Your task to perform on an android device: Toggle the flashlight Image 0: 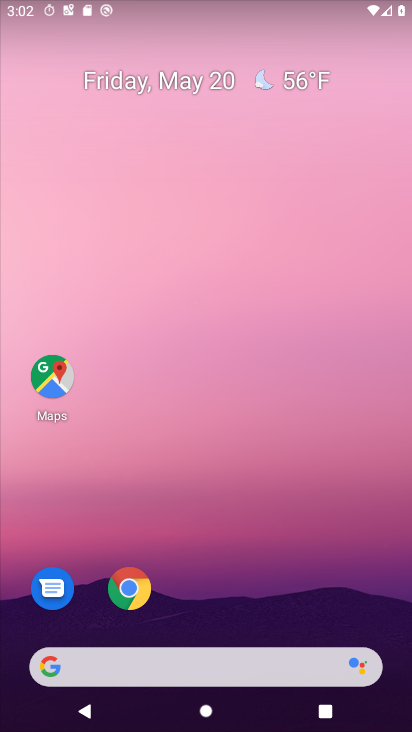
Step 0: drag from (18, 639) to (164, 160)
Your task to perform on an android device: Toggle the flashlight Image 1: 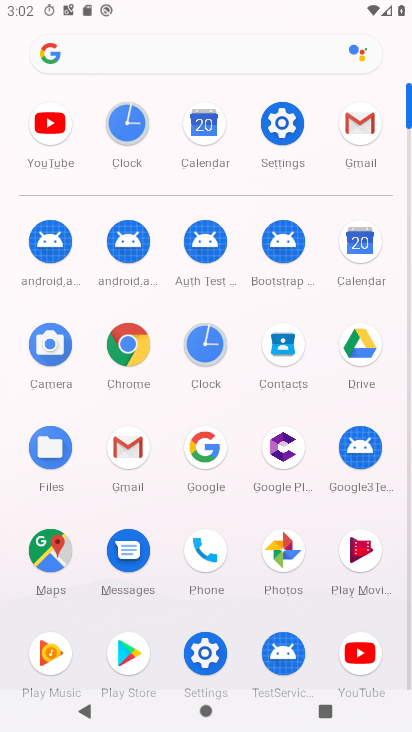
Step 1: click (287, 132)
Your task to perform on an android device: Toggle the flashlight Image 2: 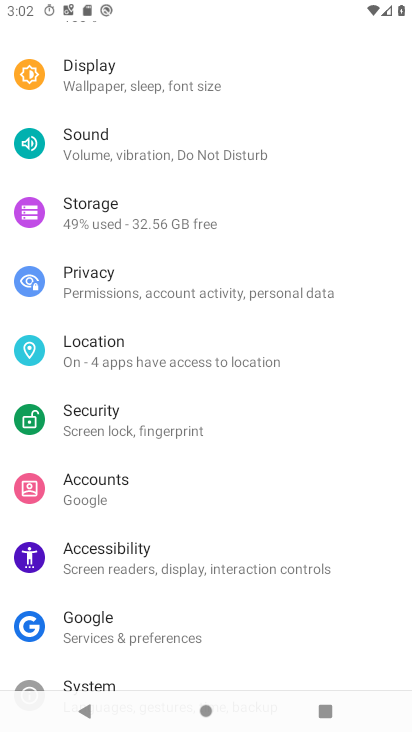
Step 2: task complete